Your task to perform on an android device: open chrome and create a bookmark for the current page Image 0: 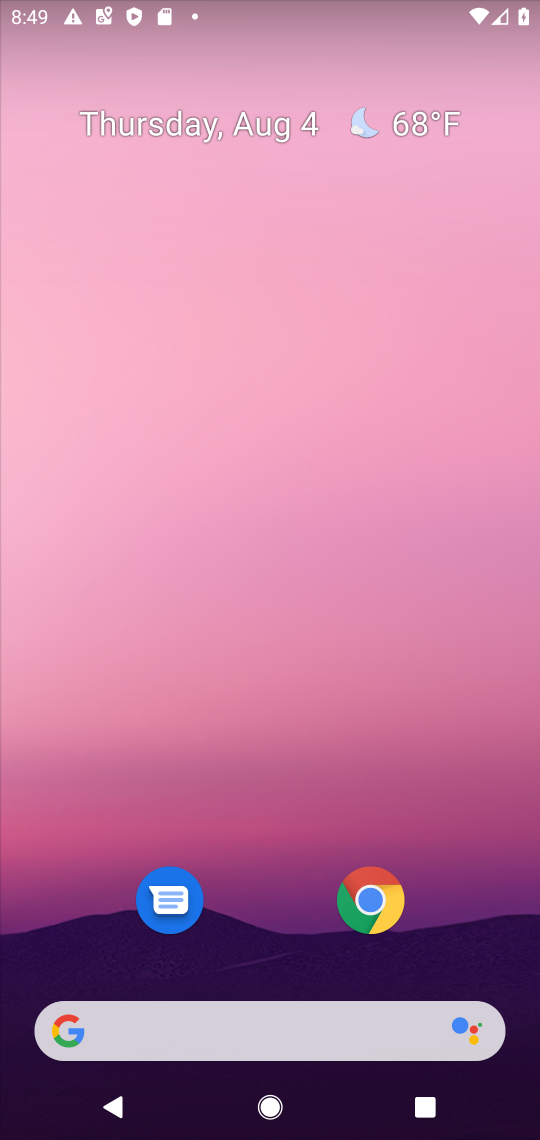
Step 0: click (373, 901)
Your task to perform on an android device: open chrome and create a bookmark for the current page Image 1: 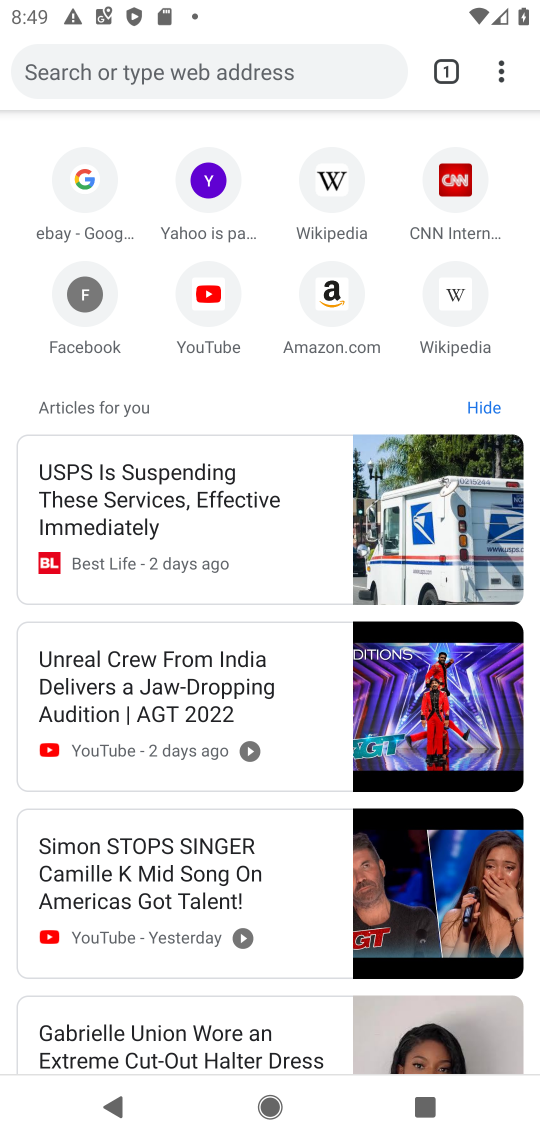
Step 1: click (501, 73)
Your task to perform on an android device: open chrome and create a bookmark for the current page Image 2: 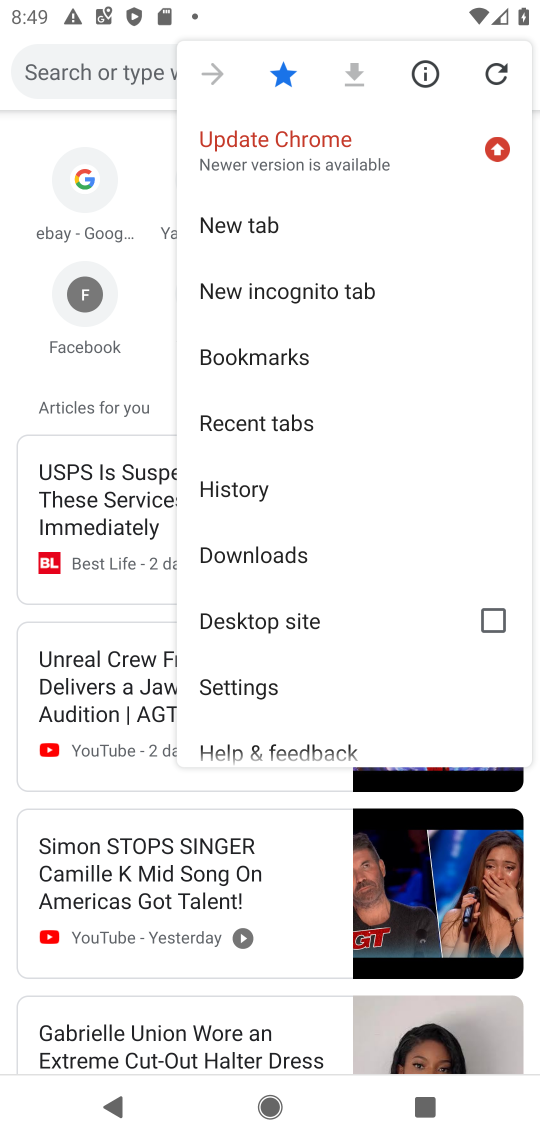
Step 2: task complete